Your task to perform on an android device: open app "Calculator" Image 0: 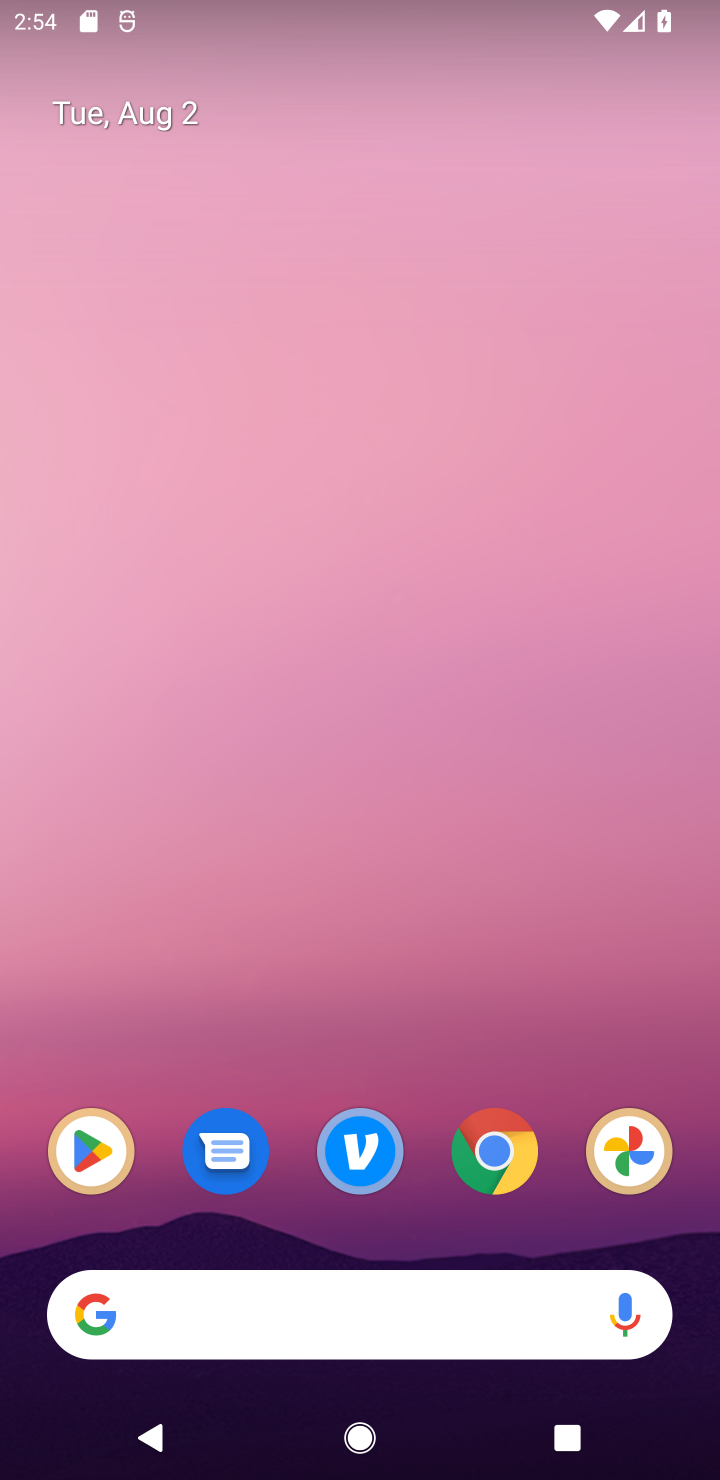
Step 0: drag from (502, 660) to (552, 364)
Your task to perform on an android device: open app "Calculator" Image 1: 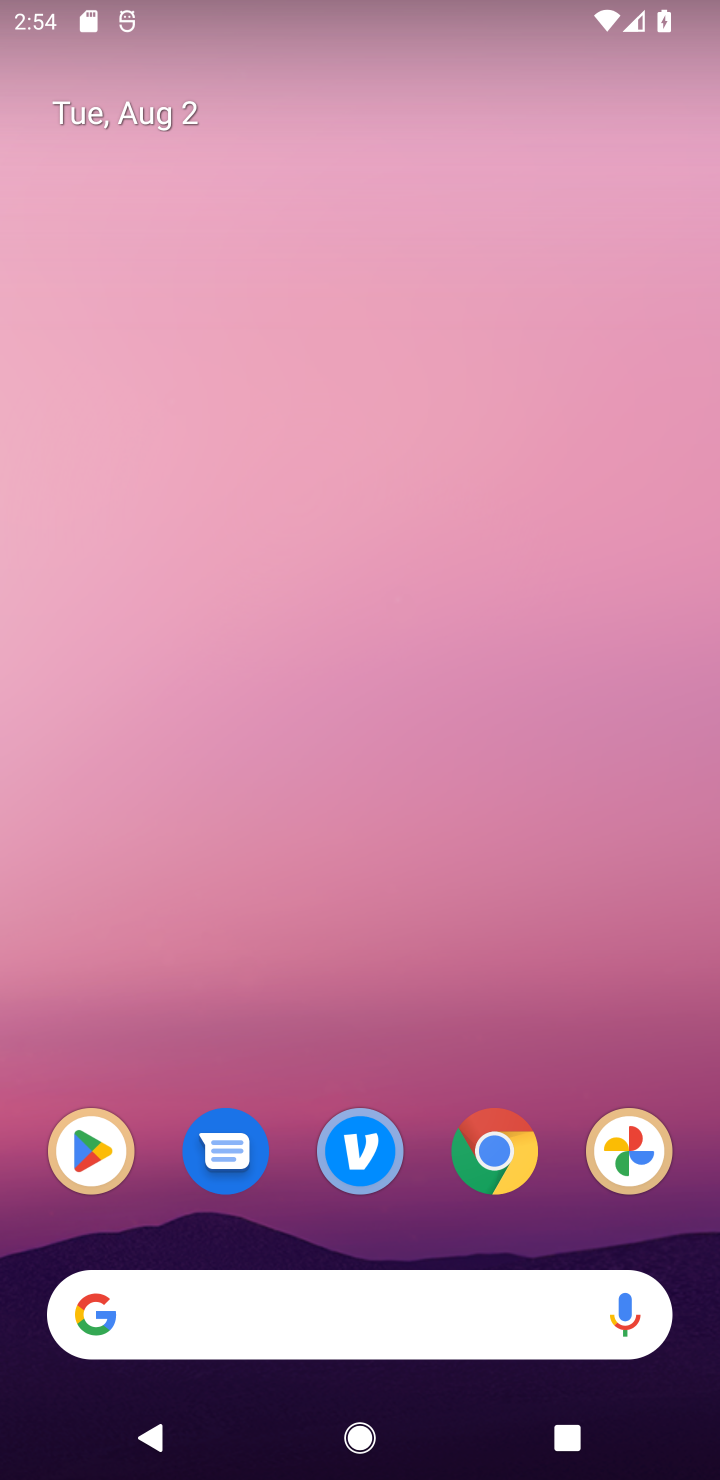
Step 1: drag from (354, 949) to (332, 318)
Your task to perform on an android device: open app "Calculator" Image 2: 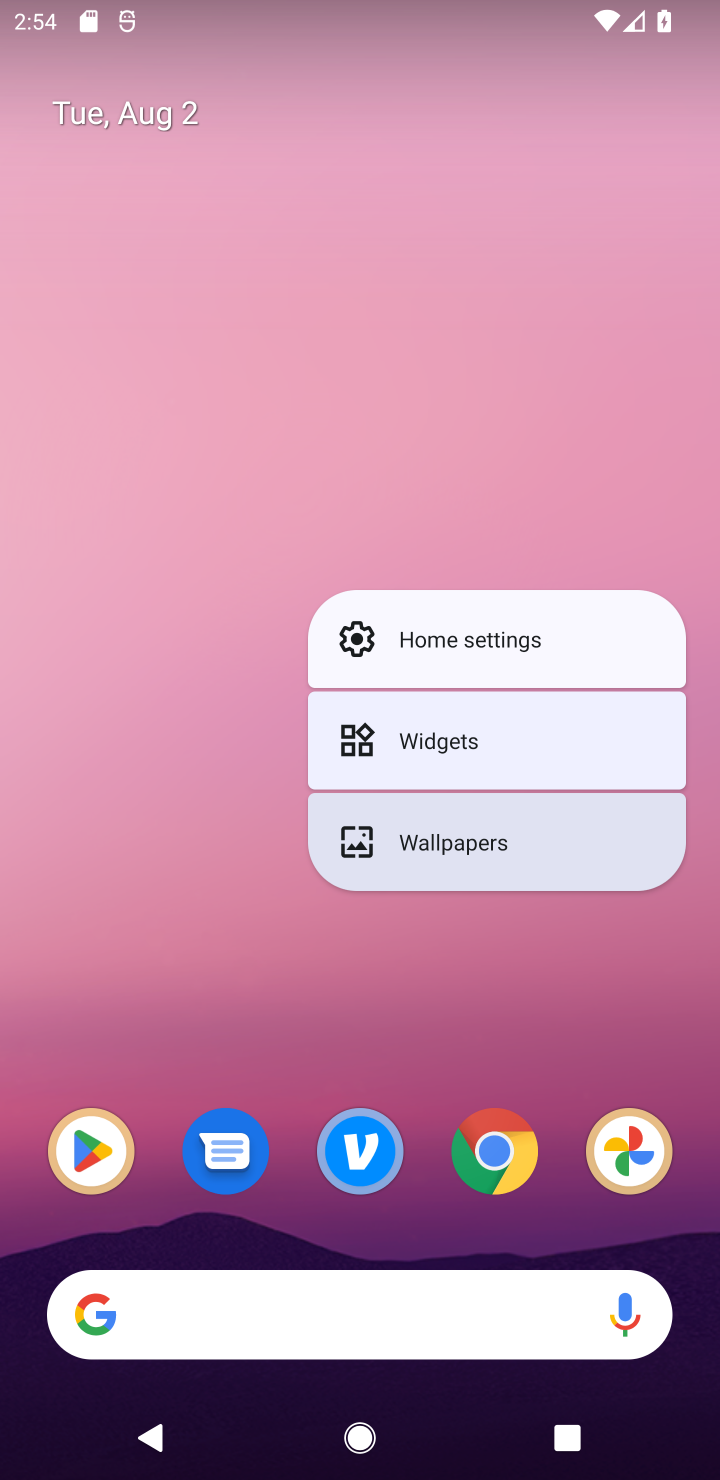
Step 2: click (374, 344)
Your task to perform on an android device: open app "Calculator" Image 3: 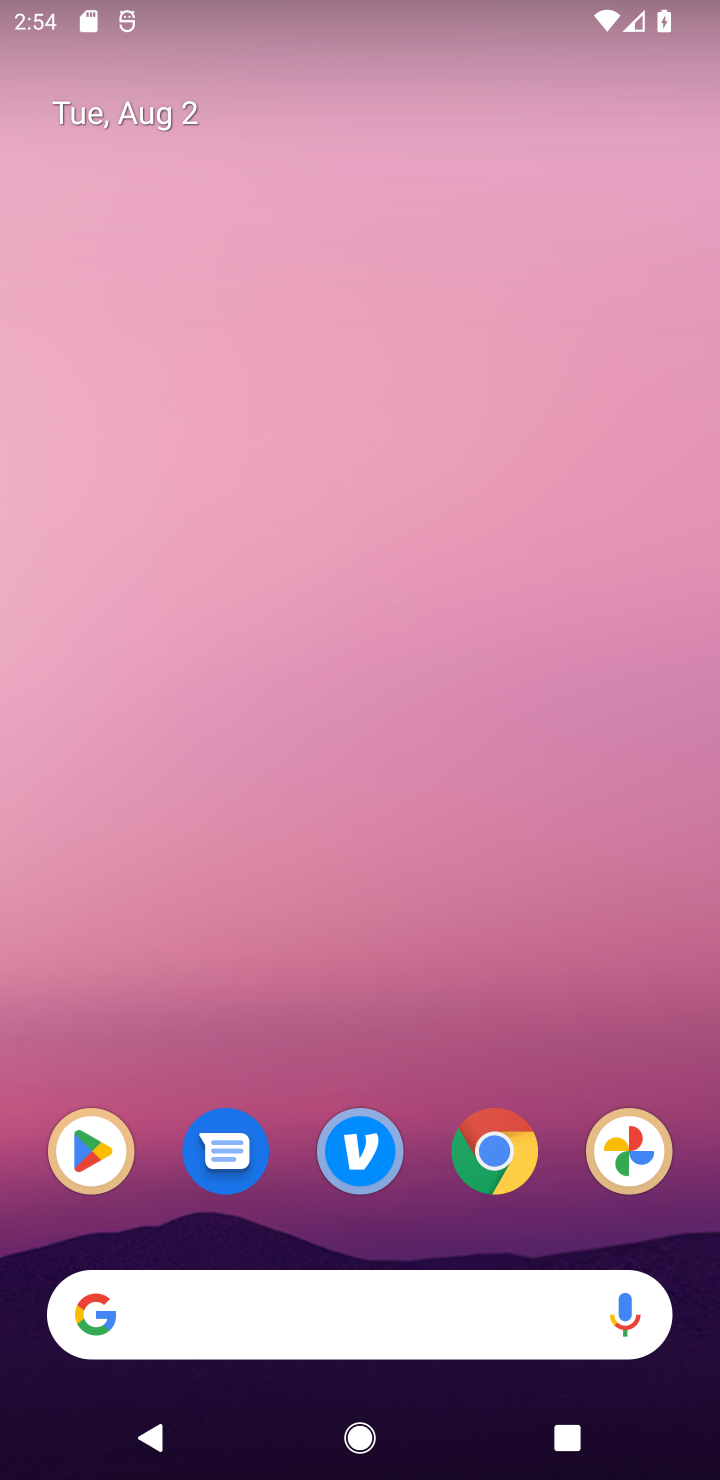
Step 3: task complete